Your task to perform on an android device: show emergency info Image 0: 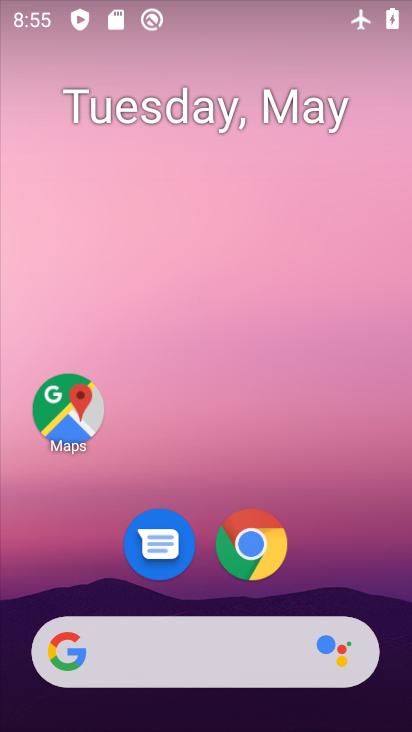
Step 0: drag from (306, 566) to (312, 58)
Your task to perform on an android device: show emergency info Image 1: 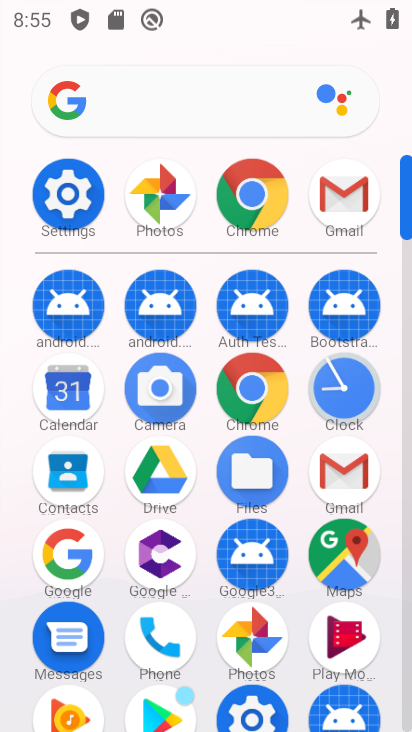
Step 1: click (78, 200)
Your task to perform on an android device: show emergency info Image 2: 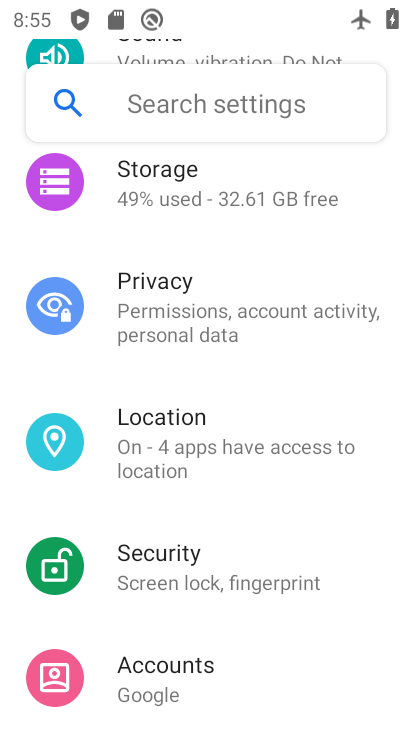
Step 2: drag from (293, 647) to (314, 215)
Your task to perform on an android device: show emergency info Image 3: 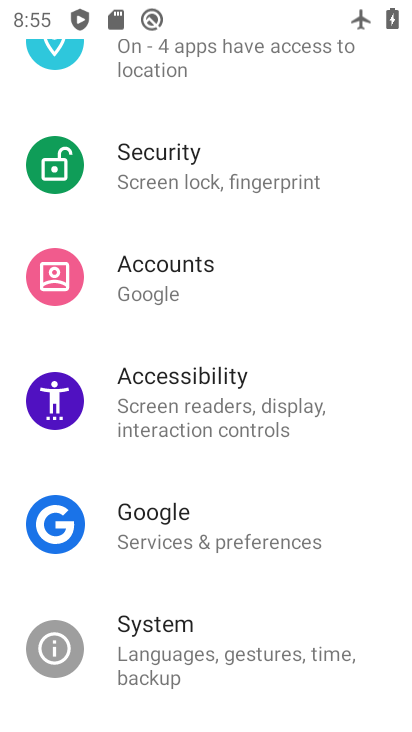
Step 3: drag from (281, 623) to (296, 276)
Your task to perform on an android device: show emergency info Image 4: 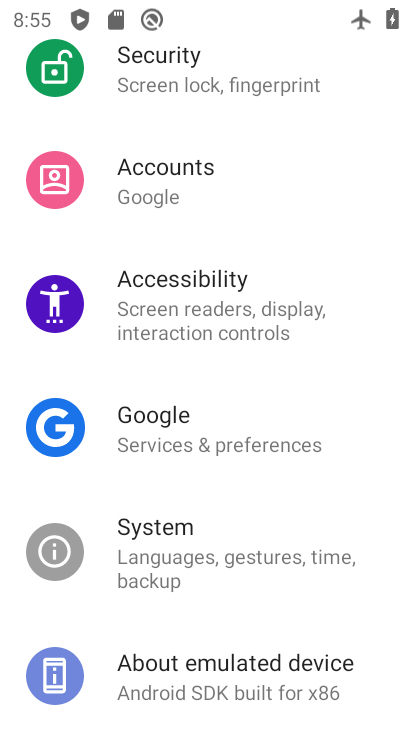
Step 4: click (271, 563)
Your task to perform on an android device: show emergency info Image 5: 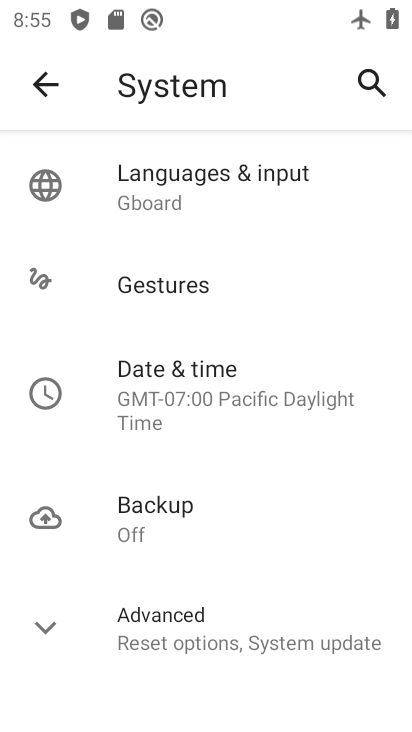
Step 5: drag from (280, 585) to (356, 264)
Your task to perform on an android device: show emergency info Image 6: 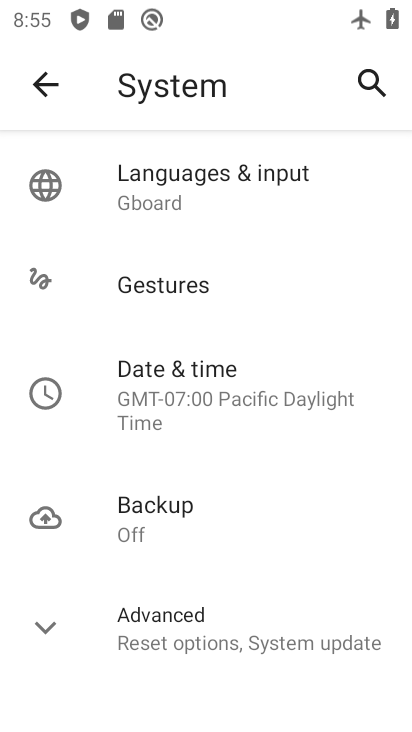
Step 6: click (26, 81)
Your task to perform on an android device: show emergency info Image 7: 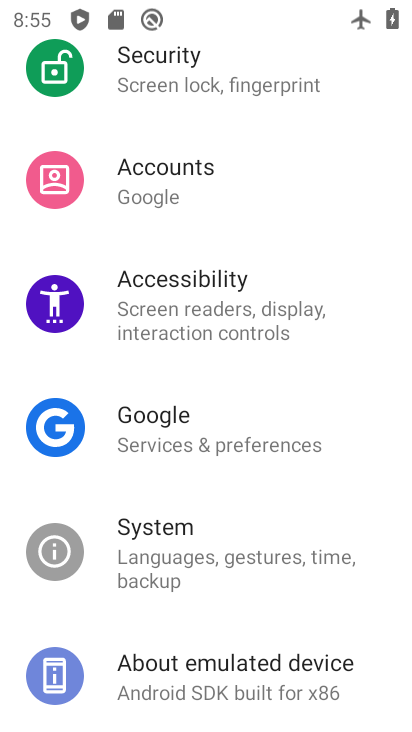
Step 7: click (192, 647)
Your task to perform on an android device: show emergency info Image 8: 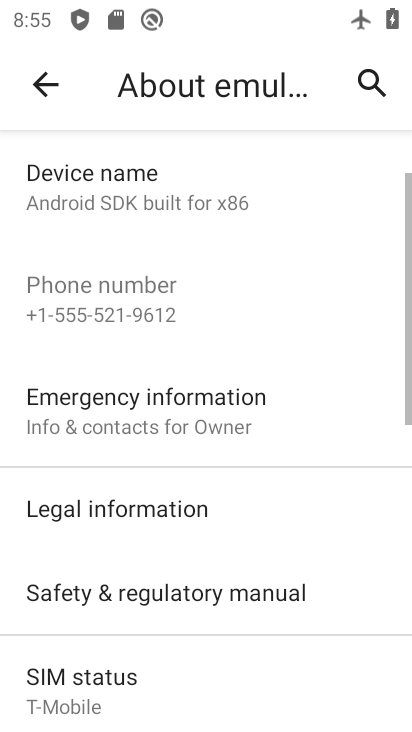
Step 8: click (207, 395)
Your task to perform on an android device: show emergency info Image 9: 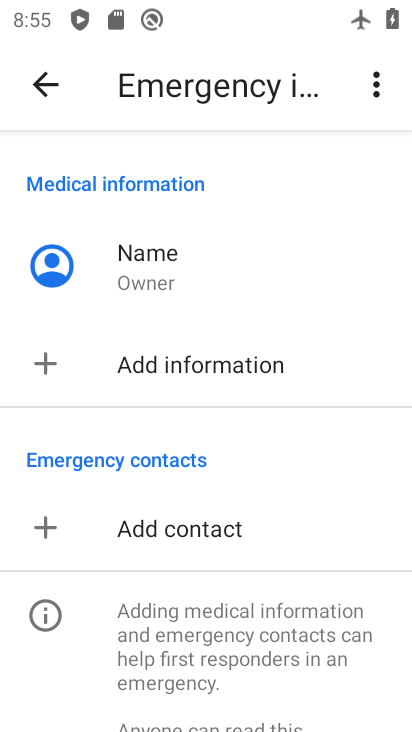
Step 9: task complete